Your task to perform on an android device: turn on sleep mode Image 0: 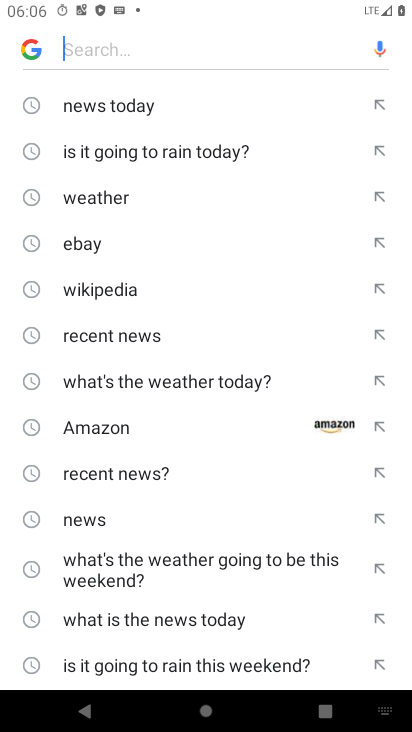
Step 0: press home button
Your task to perform on an android device: turn on sleep mode Image 1: 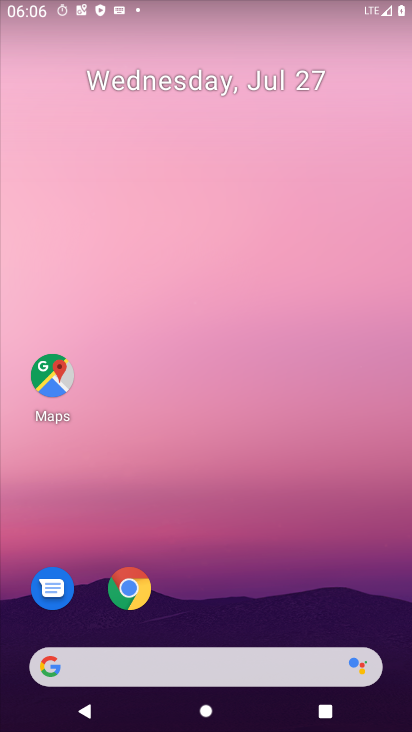
Step 1: drag from (309, 672) to (240, 0)
Your task to perform on an android device: turn on sleep mode Image 2: 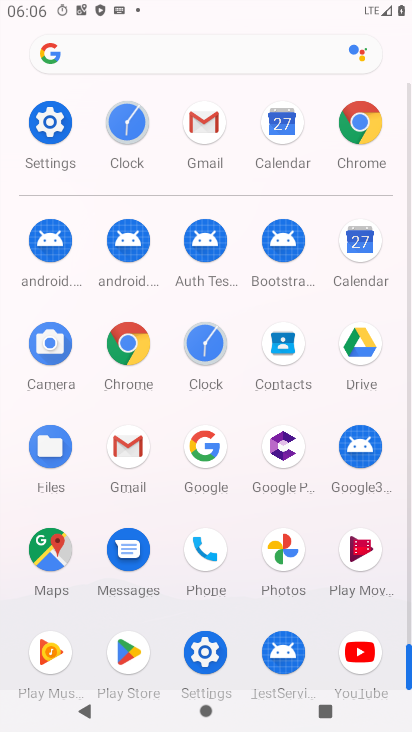
Step 2: click (34, 128)
Your task to perform on an android device: turn on sleep mode Image 3: 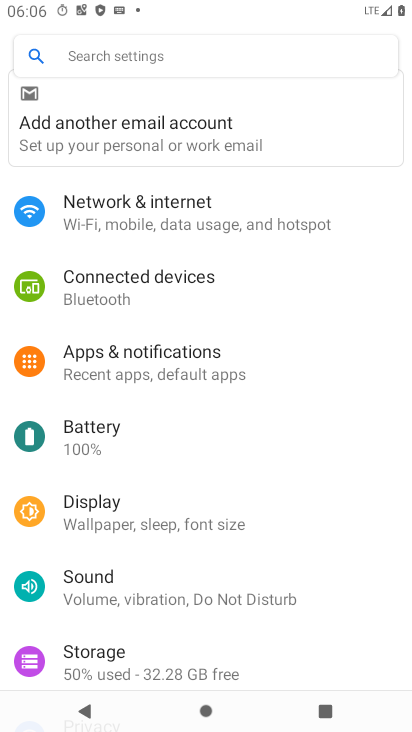
Step 3: click (185, 518)
Your task to perform on an android device: turn on sleep mode Image 4: 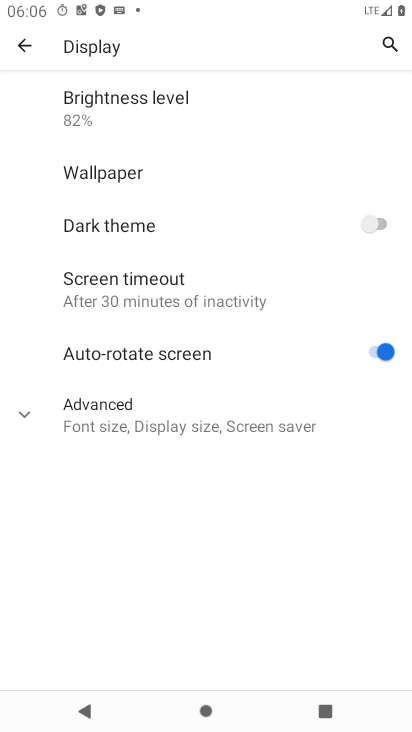
Step 4: task complete